Your task to perform on an android device: What's the weather going to be this weekend? Image 0: 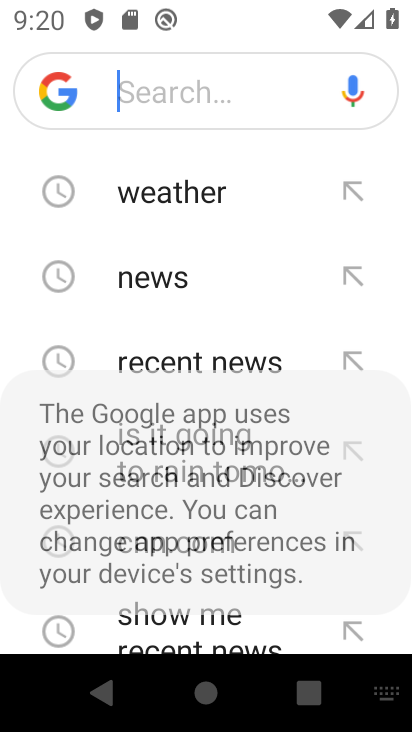
Step 0: press home button
Your task to perform on an android device: What's the weather going to be this weekend? Image 1: 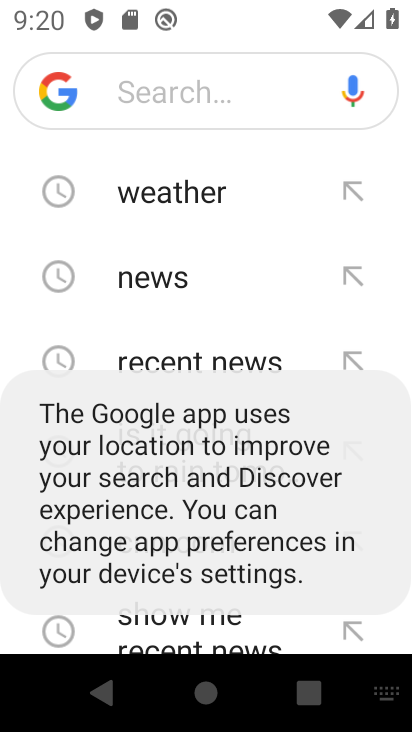
Step 1: press home button
Your task to perform on an android device: What's the weather going to be this weekend? Image 2: 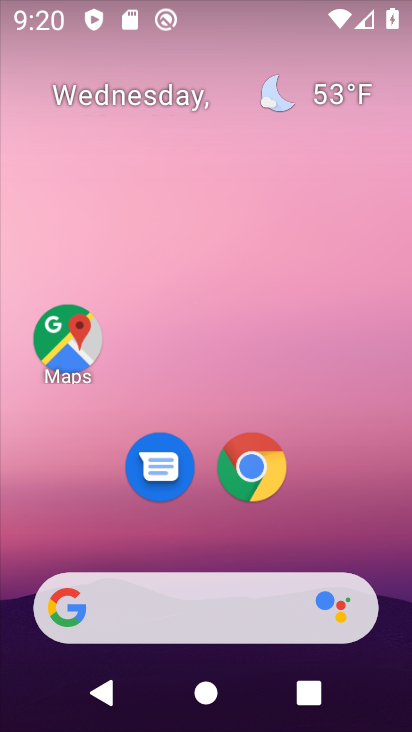
Step 2: click (241, 493)
Your task to perform on an android device: What's the weather going to be this weekend? Image 3: 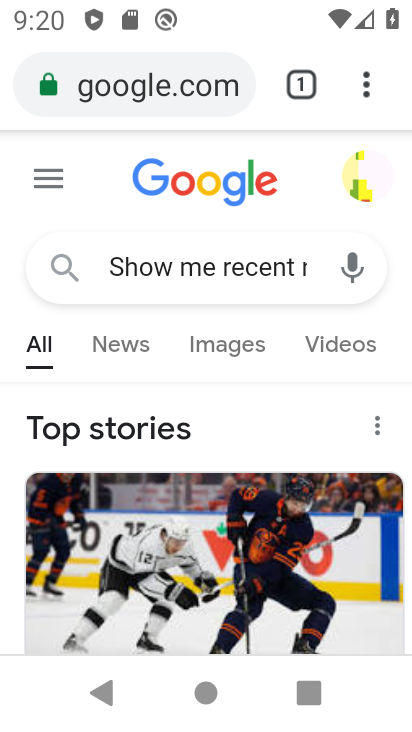
Step 3: click (203, 83)
Your task to perform on an android device: What's the weather going to be this weekend? Image 4: 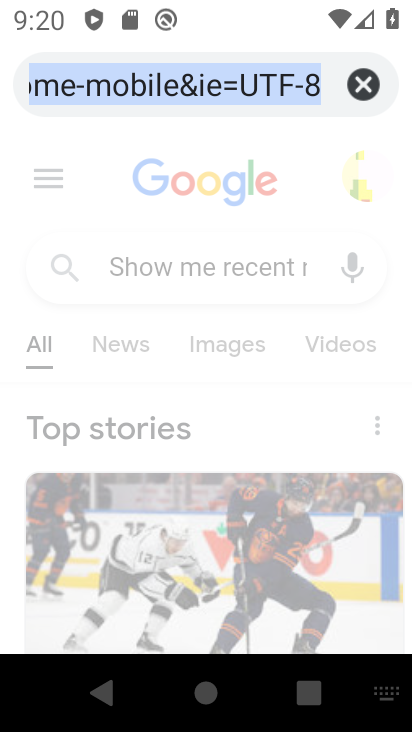
Step 4: click (367, 79)
Your task to perform on an android device: What's the weather going to be this weekend? Image 5: 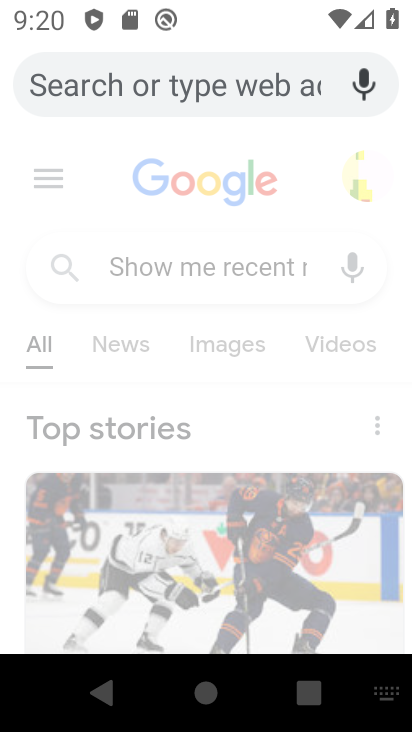
Step 5: type "What's the weather going to be this weekend?"
Your task to perform on an android device: What's the weather going to be this weekend? Image 6: 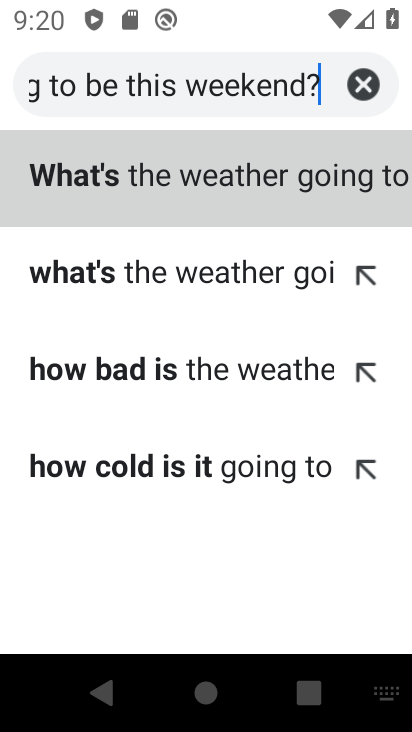
Step 6: click (321, 148)
Your task to perform on an android device: What's the weather going to be this weekend? Image 7: 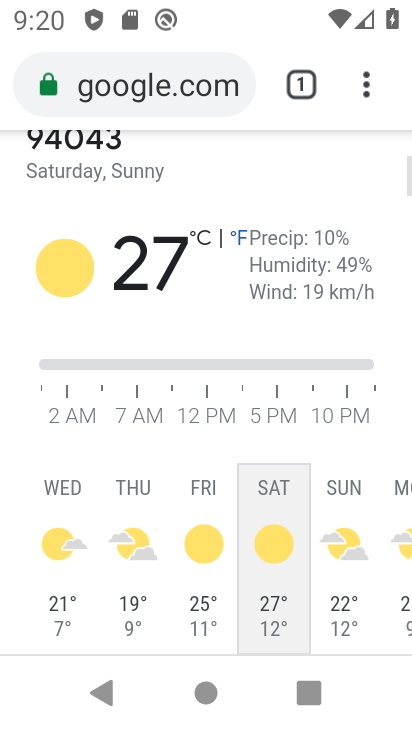
Step 7: task complete